Your task to perform on an android device: Show me recent news Image 0: 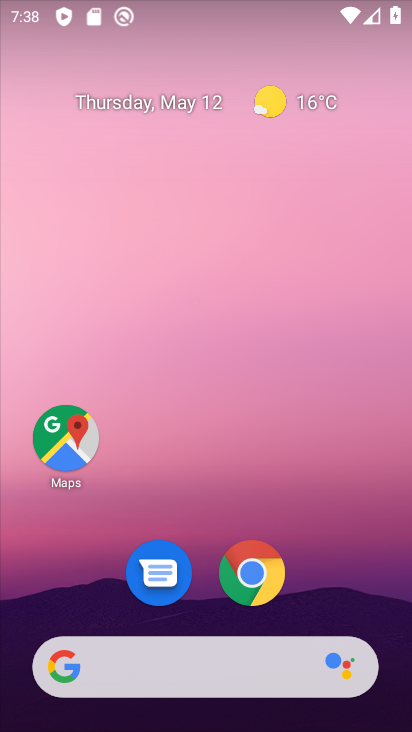
Step 0: drag from (71, 605) to (100, 218)
Your task to perform on an android device: Show me recent news Image 1: 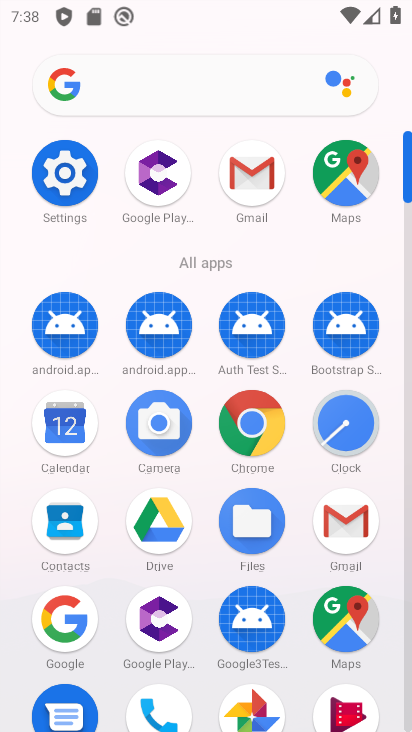
Step 1: click (74, 627)
Your task to perform on an android device: Show me recent news Image 2: 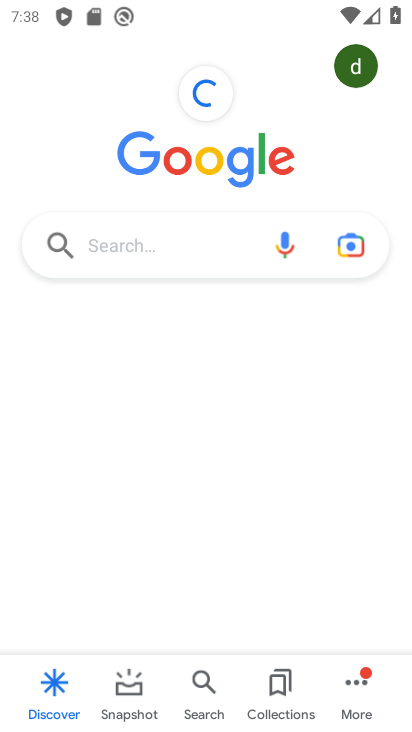
Step 2: click (169, 236)
Your task to perform on an android device: Show me recent news Image 3: 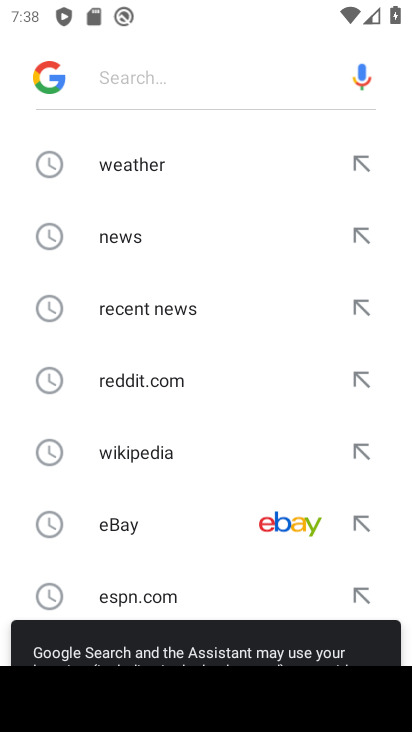
Step 3: click (153, 307)
Your task to perform on an android device: Show me recent news Image 4: 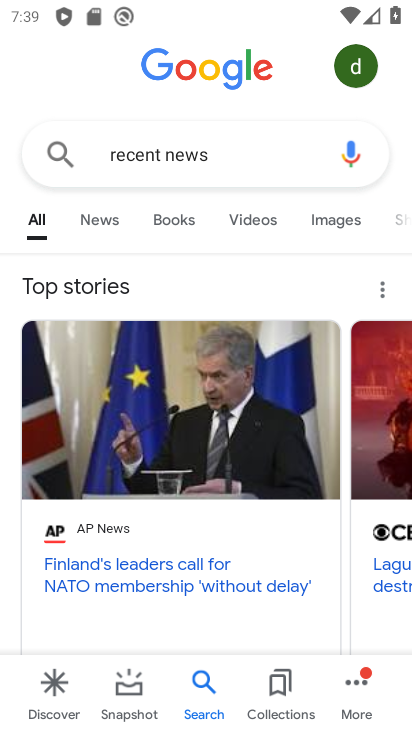
Step 4: task complete